Your task to perform on an android device: When is my next meeting? Image 0: 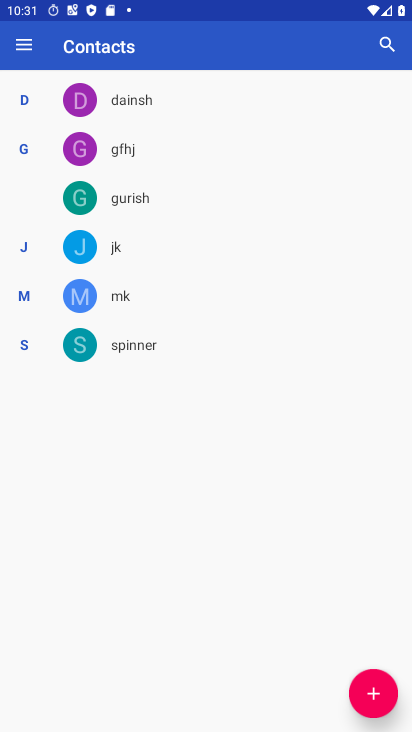
Step 0: press home button
Your task to perform on an android device: When is my next meeting? Image 1: 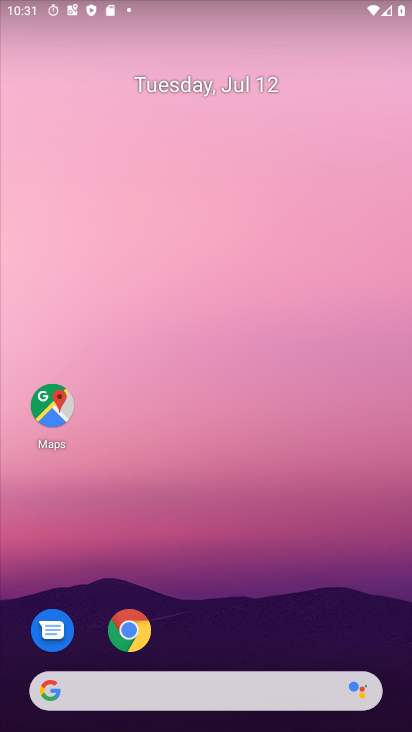
Step 1: drag from (240, 629) to (290, 83)
Your task to perform on an android device: When is my next meeting? Image 2: 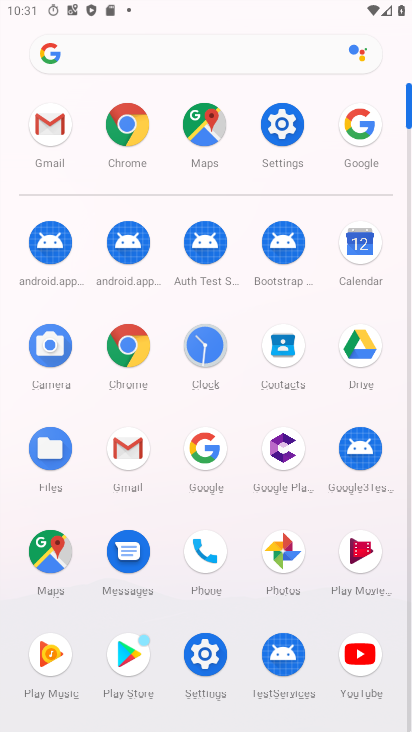
Step 2: click (359, 243)
Your task to perform on an android device: When is my next meeting? Image 3: 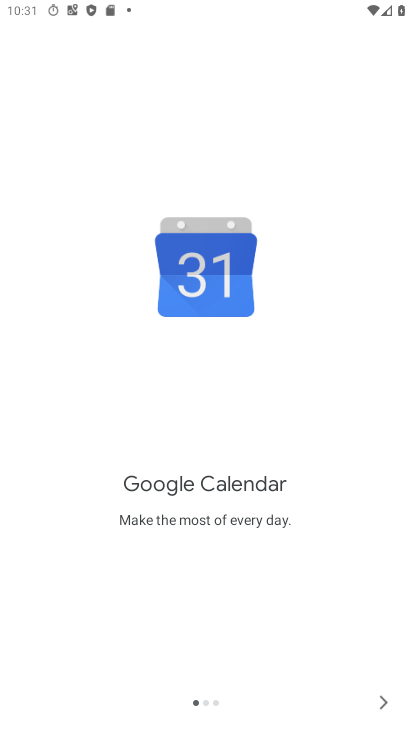
Step 3: click (370, 696)
Your task to perform on an android device: When is my next meeting? Image 4: 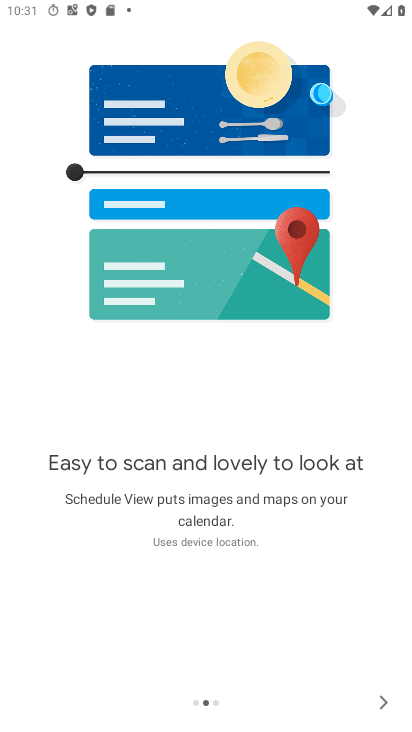
Step 4: click (371, 698)
Your task to perform on an android device: When is my next meeting? Image 5: 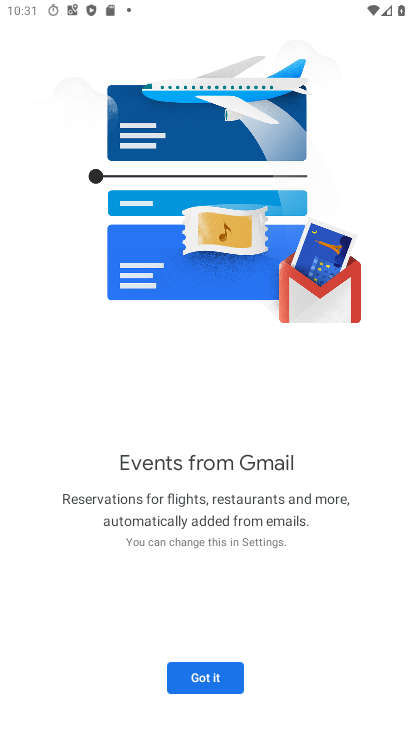
Step 5: click (209, 672)
Your task to perform on an android device: When is my next meeting? Image 6: 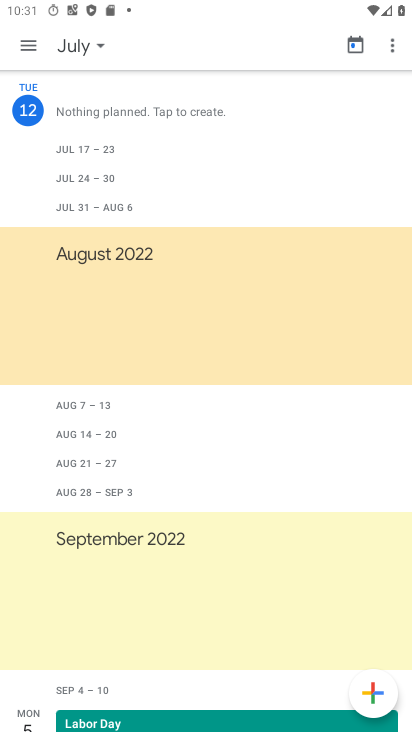
Step 6: click (92, 46)
Your task to perform on an android device: When is my next meeting? Image 7: 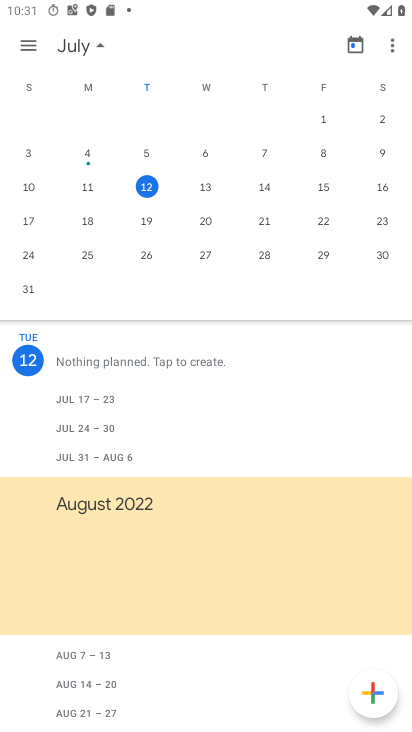
Step 7: click (264, 192)
Your task to perform on an android device: When is my next meeting? Image 8: 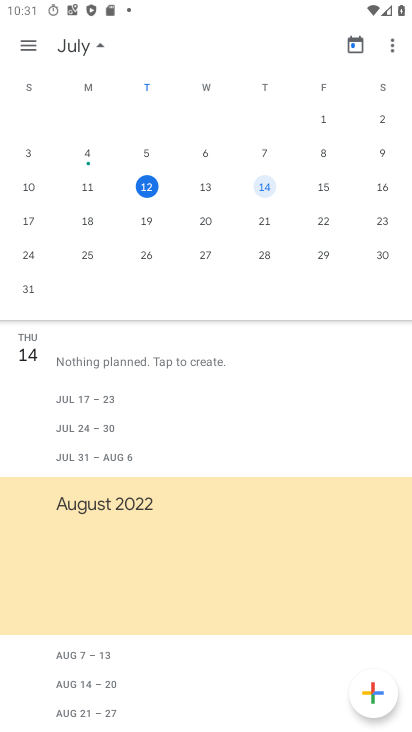
Step 8: task complete